Your task to perform on an android device: Go to CNN.com Image 0: 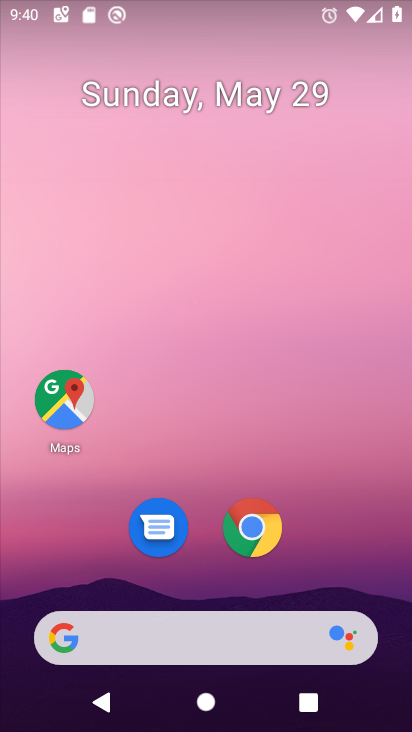
Step 0: press home button
Your task to perform on an android device: Go to CNN.com Image 1: 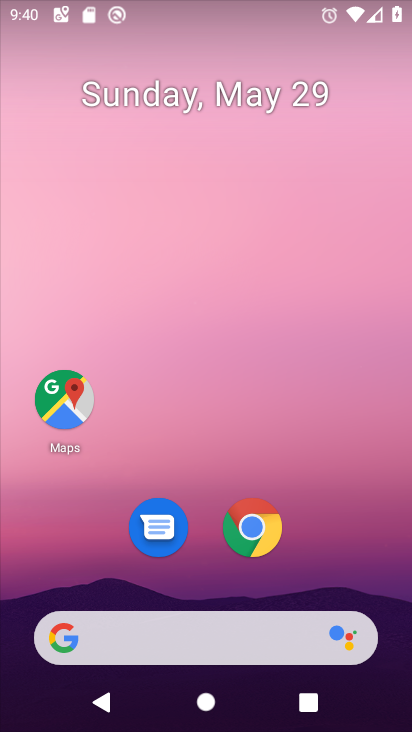
Step 1: click (247, 521)
Your task to perform on an android device: Go to CNN.com Image 2: 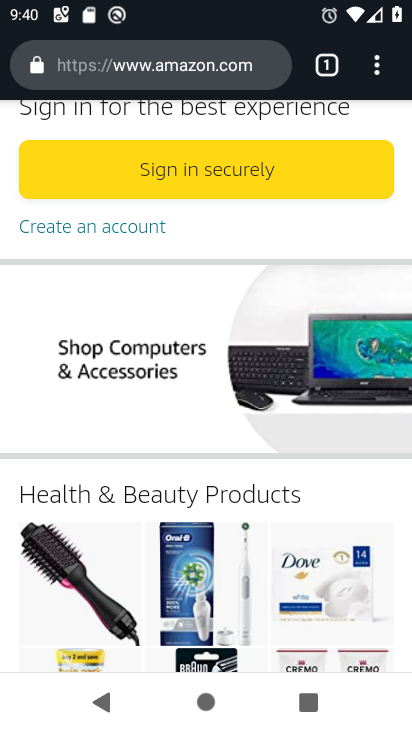
Step 2: press home button
Your task to perform on an android device: Go to CNN.com Image 3: 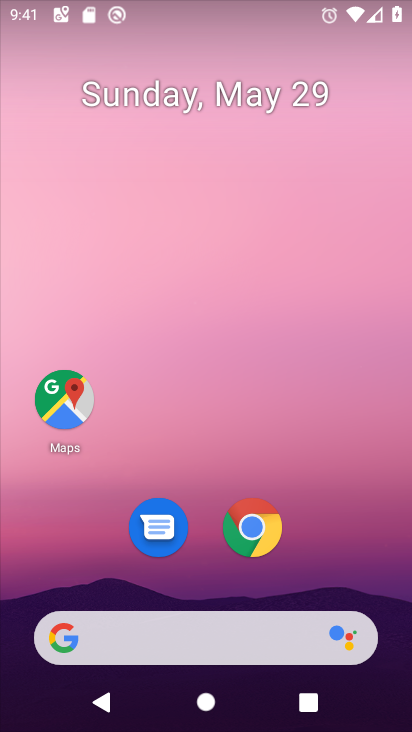
Step 3: click (255, 527)
Your task to perform on an android device: Go to CNN.com Image 4: 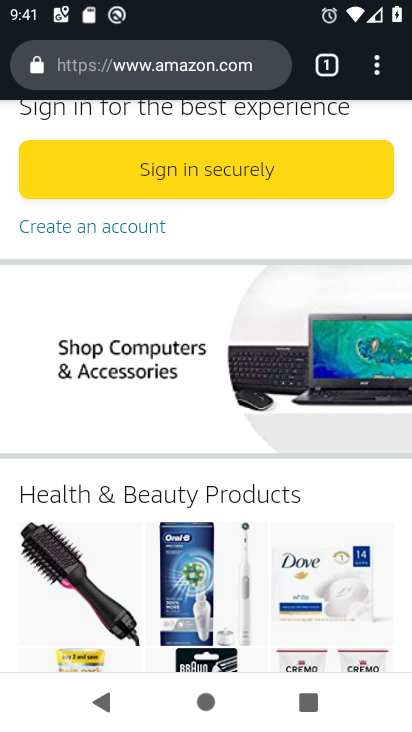
Step 4: click (320, 60)
Your task to perform on an android device: Go to CNN.com Image 5: 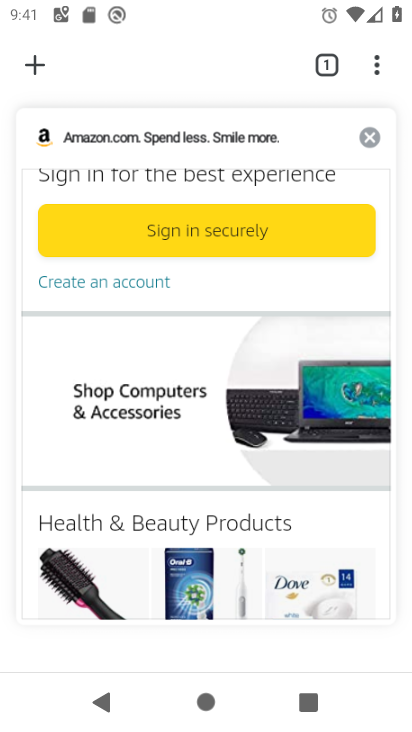
Step 5: click (366, 138)
Your task to perform on an android device: Go to CNN.com Image 6: 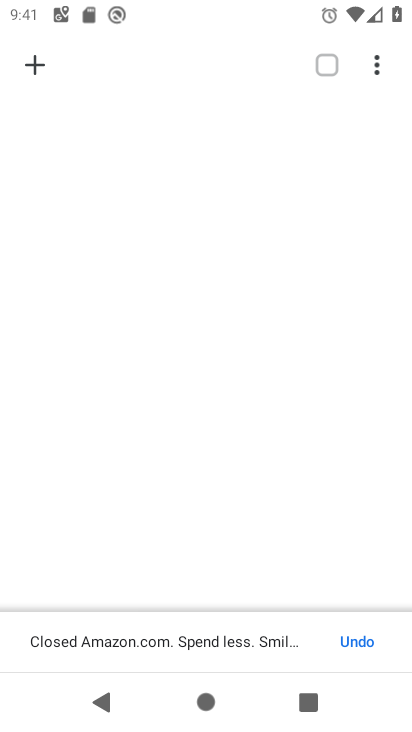
Step 6: click (31, 72)
Your task to perform on an android device: Go to CNN.com Image 7: 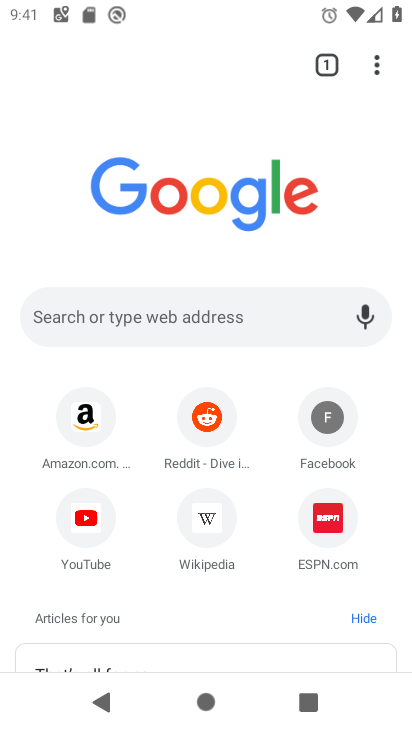
Step 7: click (148, 299)
Your task to perform on an android device: Go to CNN.com Image 8: 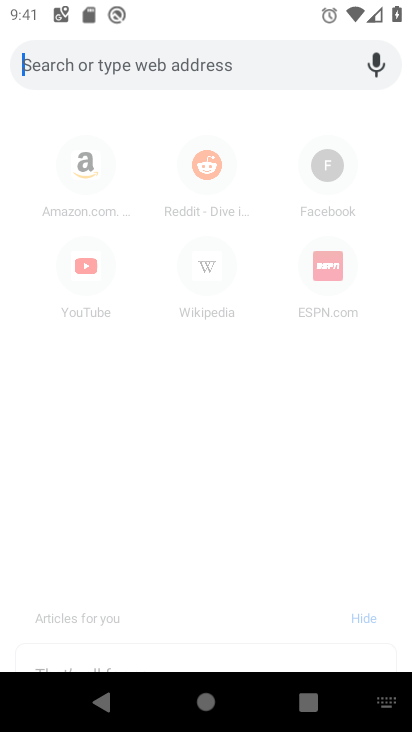
Step 8: type "cnn.com"
Your task to perform on an android device: Go to CNN.com Image 9: 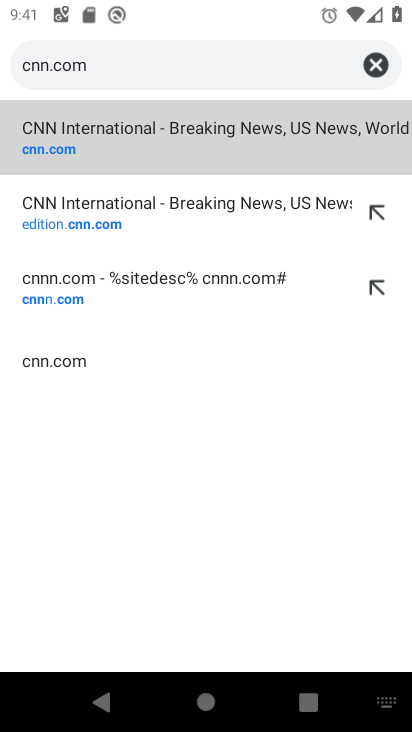
Step 9: click (94, 149)
Your task to perform on an android device: Go to CNN.com Image 10: 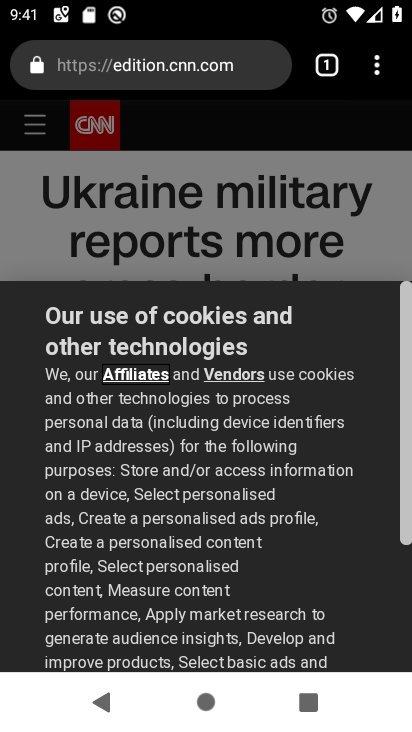
Step 10: drag from (261, 632) to (259, 195)
Your task to perform on an android device: Go to CNN.com Image 11: 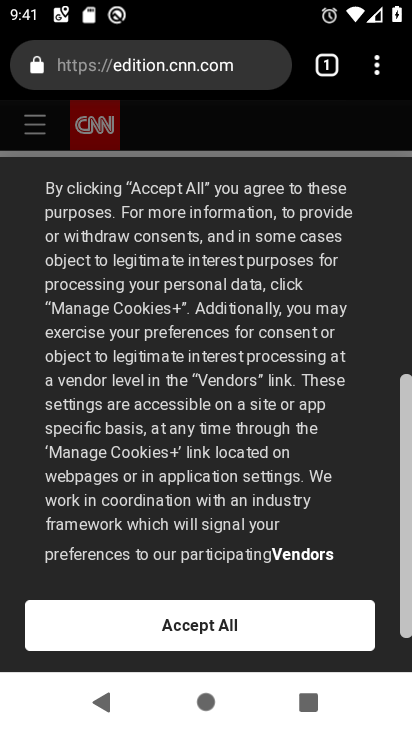
Step 11: click (206, 625)
Your task to perform on an android device: Go to CNN.com Image 12: 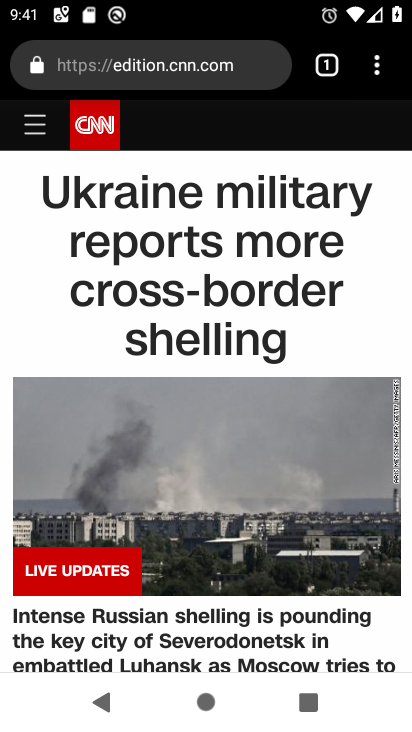
Step 12: task complete